Your task to perform on an android device: clear history in the chrome app Image 0: 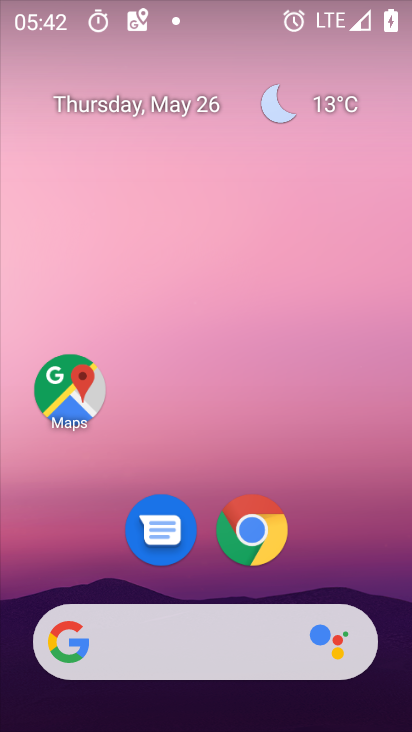
Step 0: drag from (278, 624) to (411, 556)
Your task to perform on an android device: clear history in the chrome app Image 1: 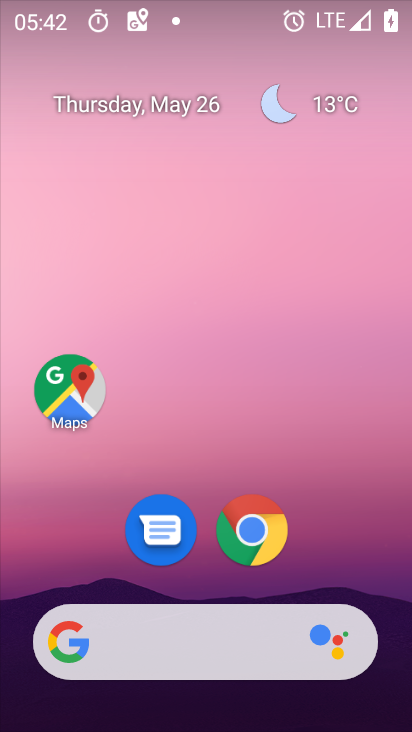
Step 1: drag from (274, 566) to (359, 6)
Your task to perform on an android device: clear history in the chrome app Image 2: 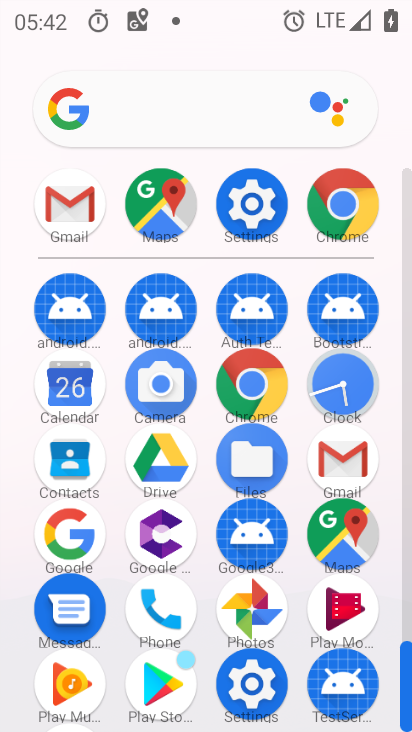
Step 2: click (251, 369)
Your task to perform on an android device: clear history in the chrome app Image 3: 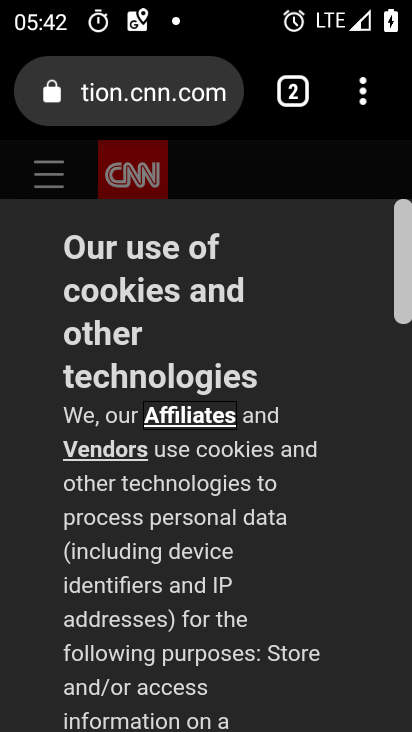
Step 3: drag from (361, 92) to (115, 503)
Your task to perform on an android device: clear history in the chrome app Image 4: 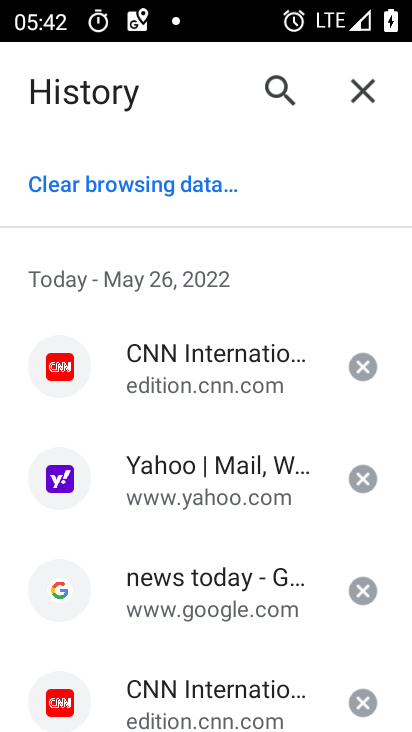
Step 4: click (145, 184)
Your task to perform on an android device: clear history in the chrome app Image 5: 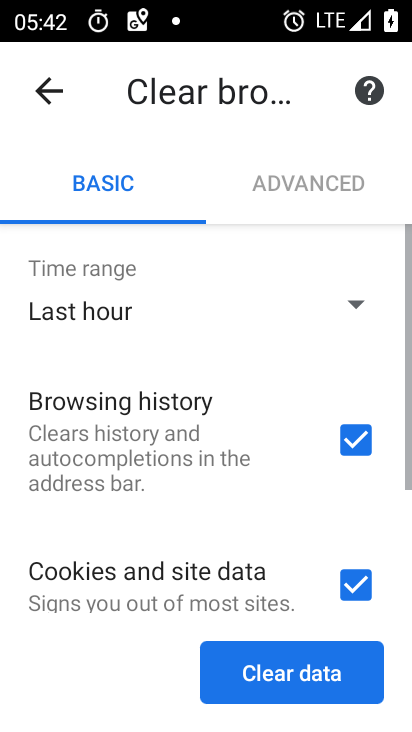
Step 5: click (319, 678)
Your task to perform on an android device: clear history in the chrome app Image 6: 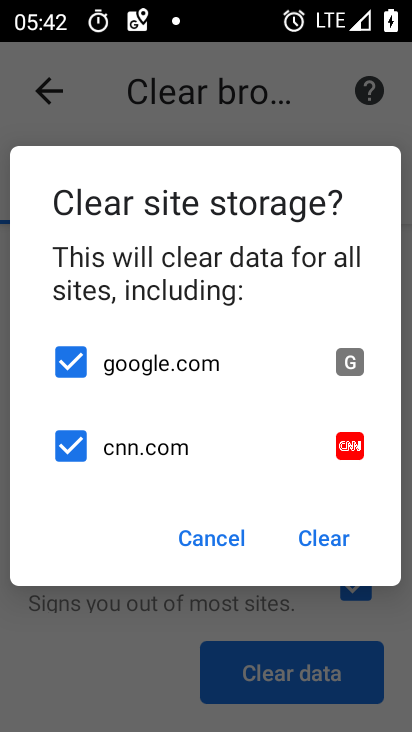
Step 6: click (323, 546)
Your task to perform on an android device: clear history in the chrome app Image 7: 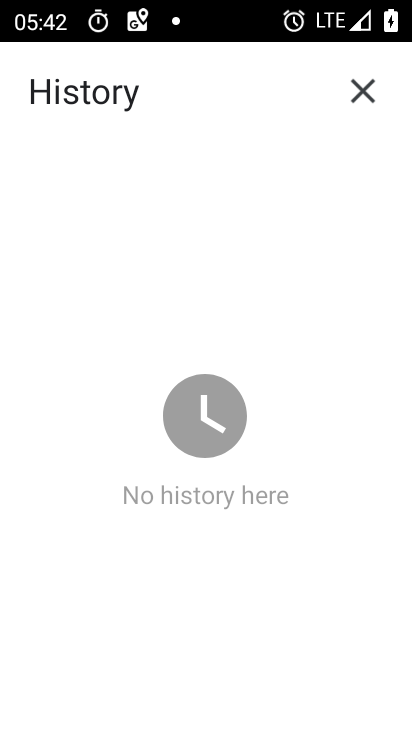
Step 7: task complete